Your task to perform on an android device: change the clock display to digital Image 0: 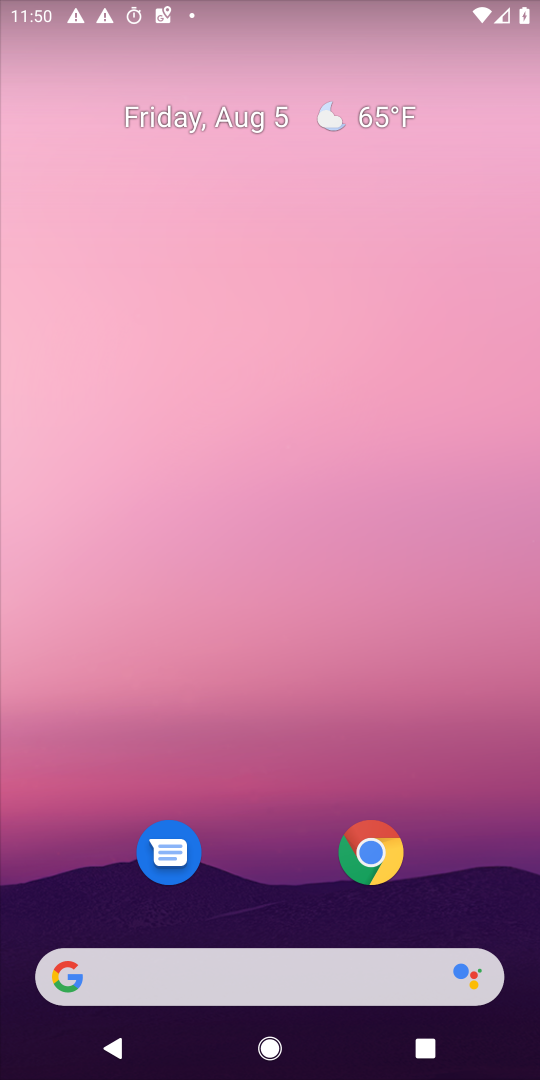
Step 0: drag from (374, 987) to (355, 294)
Your task to perform on an android device: change the clock display to digital Image 1: 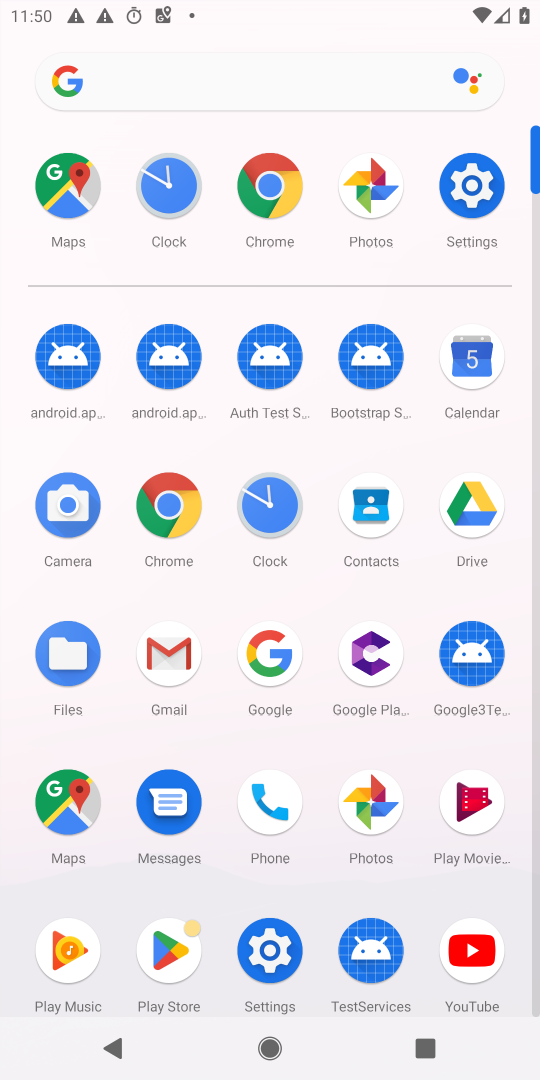
Step 1: click (283, 487)
Your task to perform on an android device: change the clock display to digital Image 2: 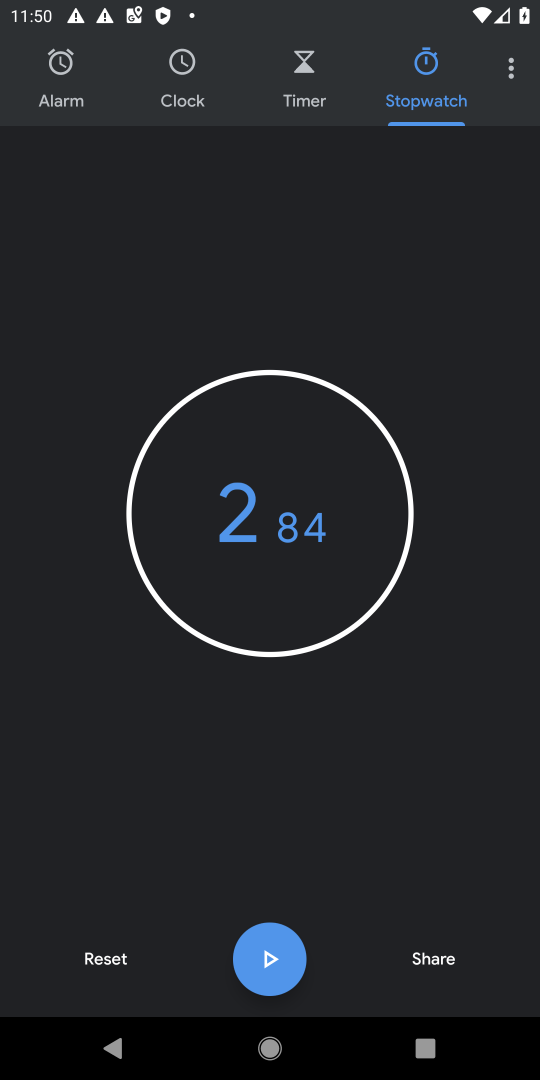
Step 2: click (509, 80)
Your task to perform on an android device: change the clock display to digital Image 3: 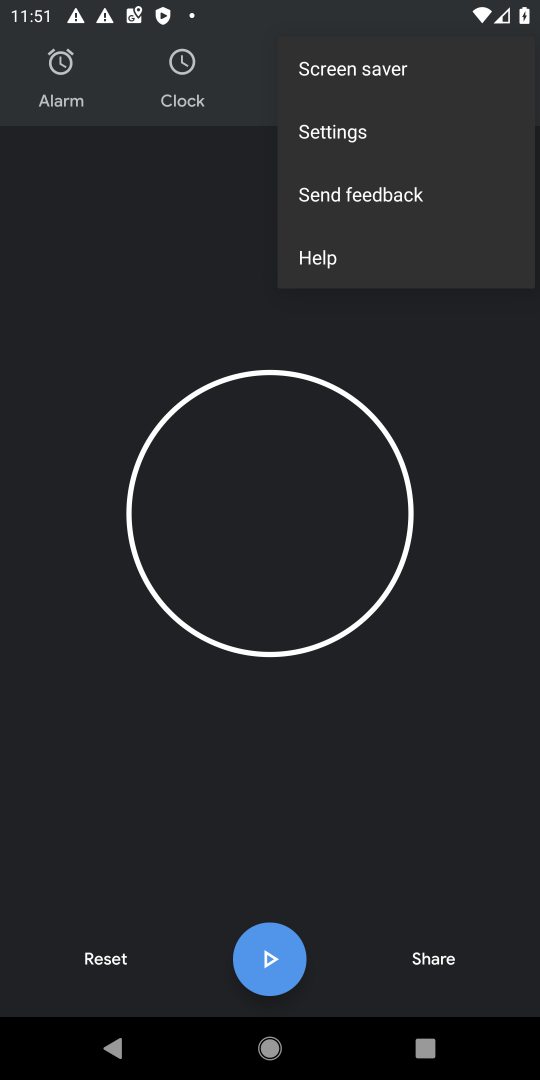
Step 3: click (356, 134)
Your task to perform on an android device: change the clock display to digital Image 4: 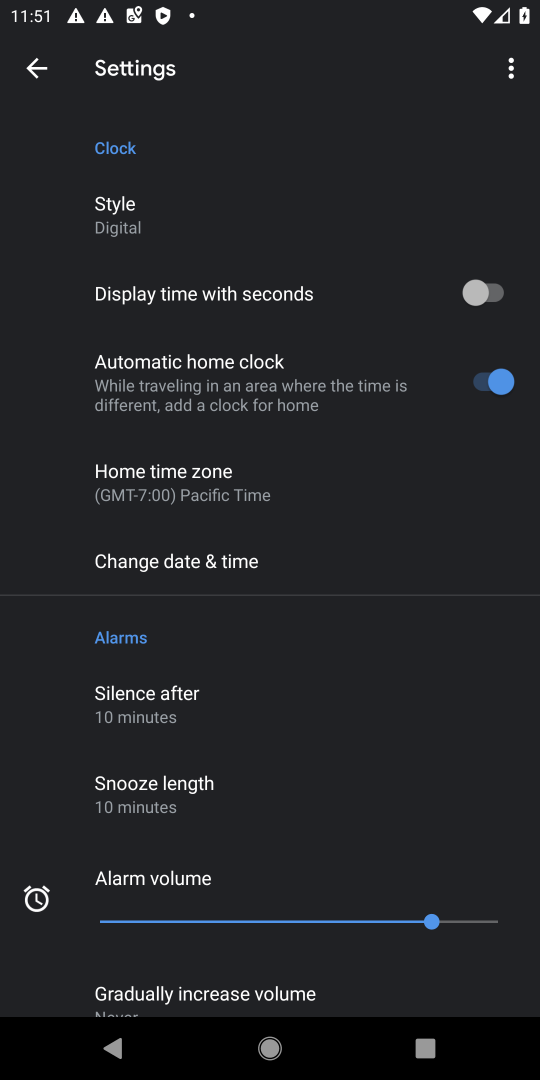
Step 4: click (151, 222)
Your task to perform on an android device: change the clock display to digital Image 5: 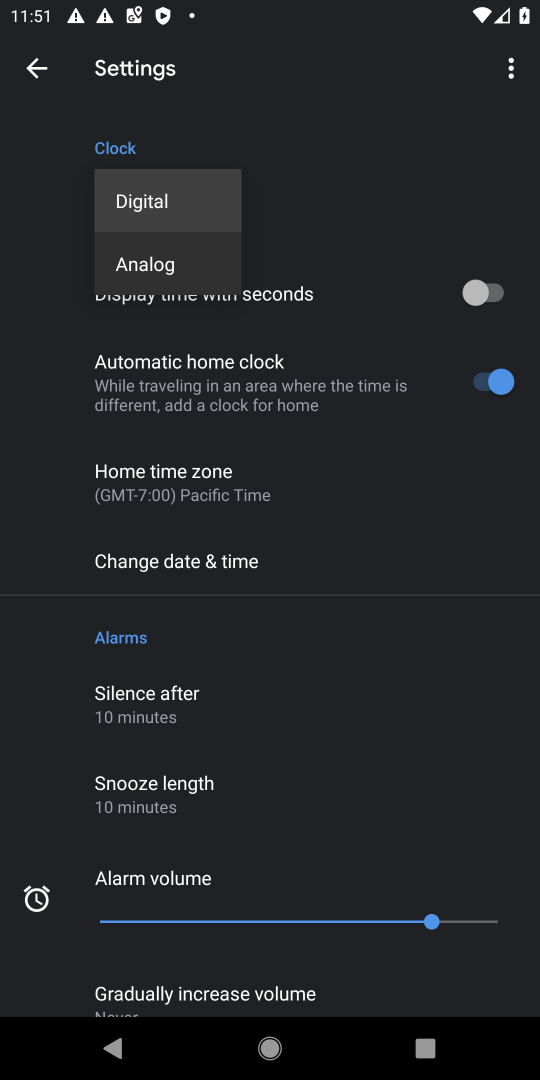
Step 5: click (156, 211)
Your task to perform on an android device: change the clock display to digital Image 6: 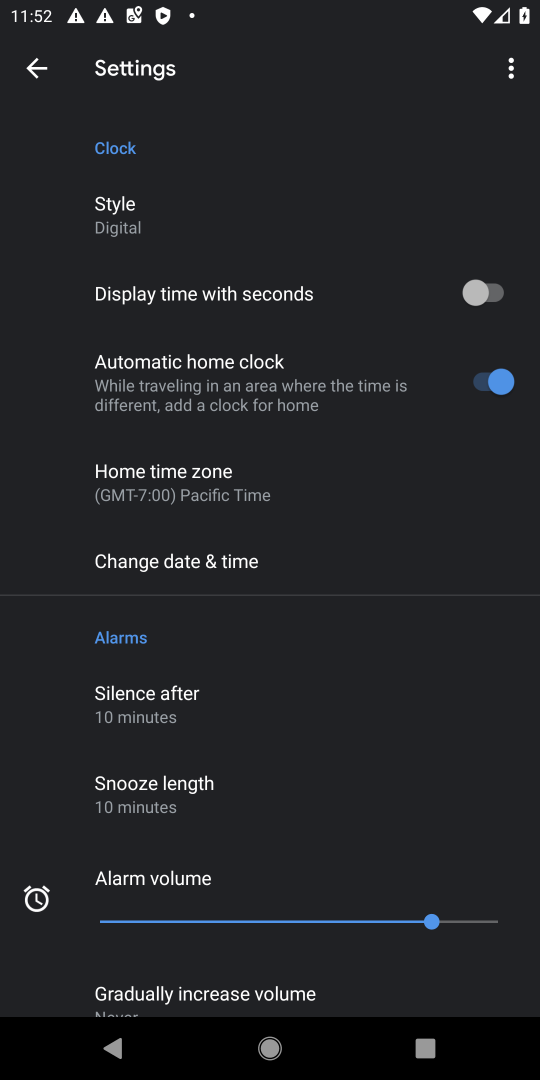
Step 6: task complete